Your task to perform on an android device: change the clock style Image 0: 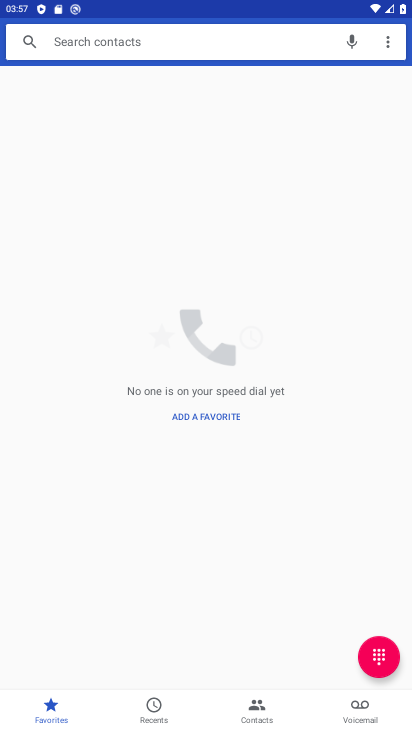
Step 0: press home button
Your task to perform on an android device: change the clock style Image 1: 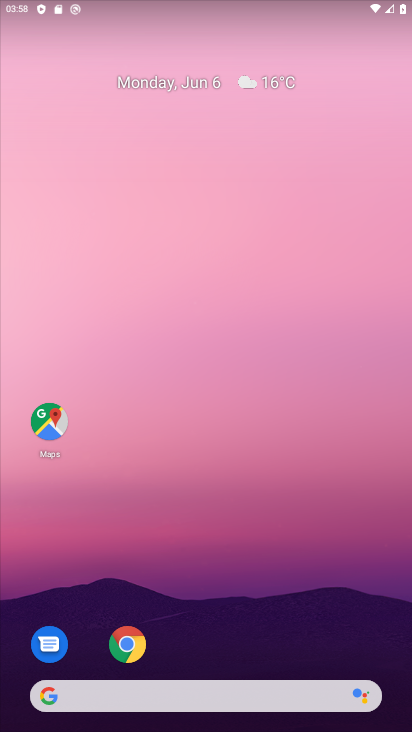
Step 1: drag from (396, 694) to (314, 48)
Your task to perform on an android device: change the clock style Image 2: 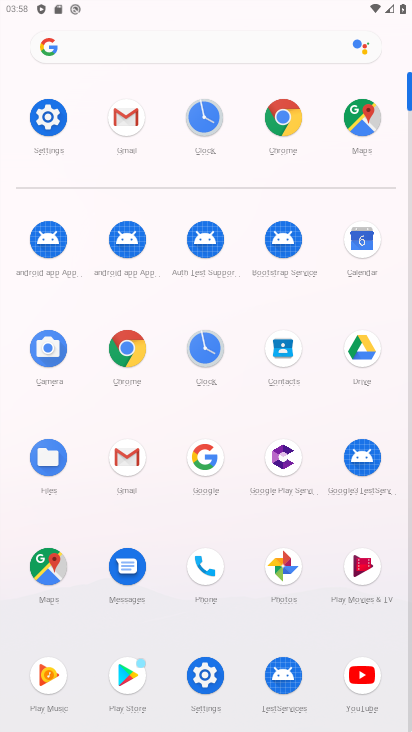
Step 2: click (213, 671)
Your task to perform on an android device: change the clock style Image 3: 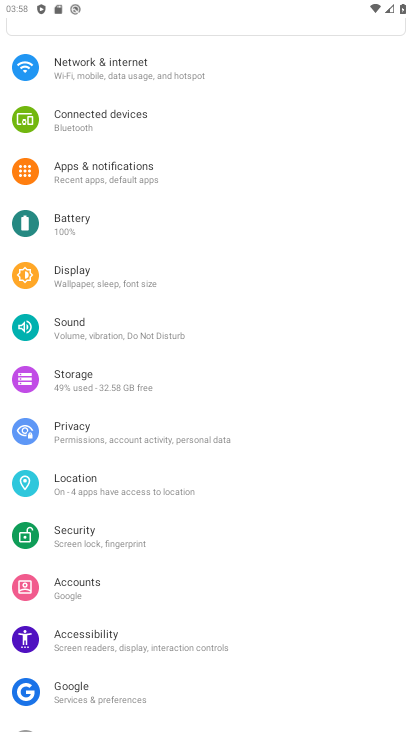
Step 3: press home button
Your task to perform on an android device: change the clock style Image 4: 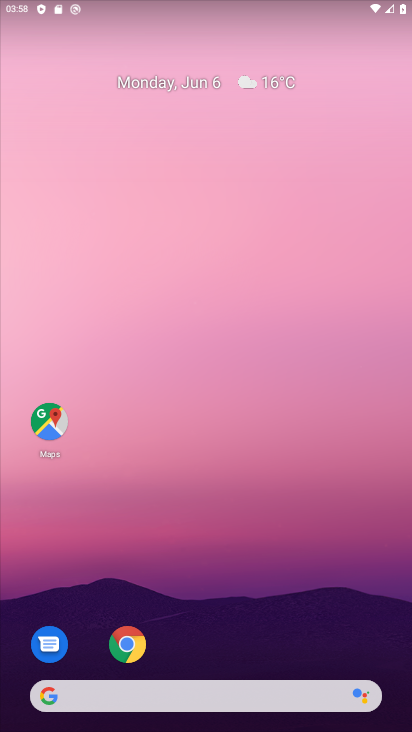
Step 4: drag from (385, 685) to (308, 80)
Your task to perform on an android device: change the clock style Image 5: 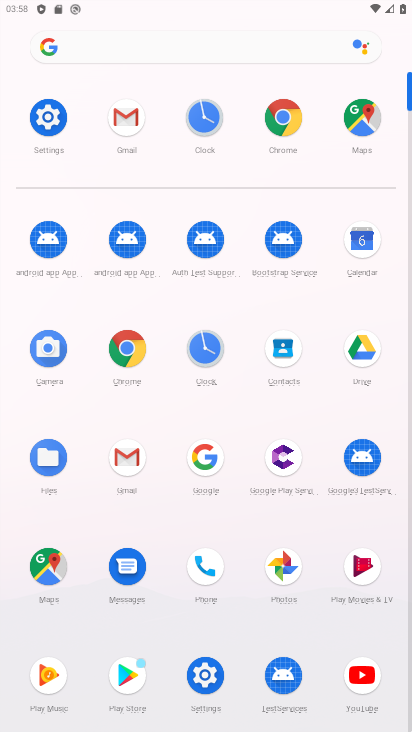
Step 5: click (209, 128)
Your task to perform on an android device: change the clock style Image 6: 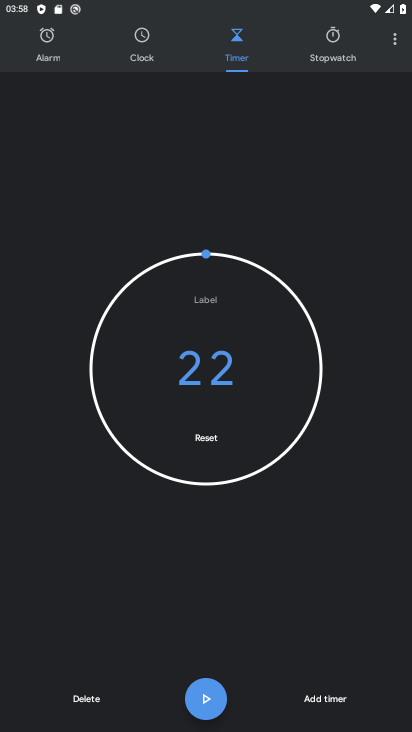
Step 6: click (395, 38)
Your task to perform on an android device: change the clock style Image 7: 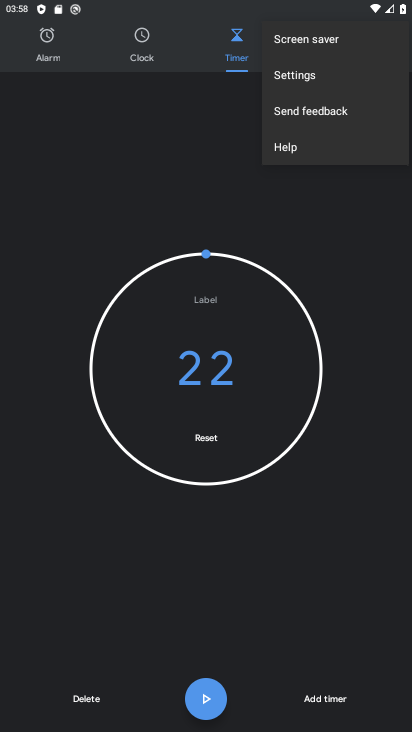
Step 7: click (296, 72)
Your task to perform on an android device: change the clock style Image 8: 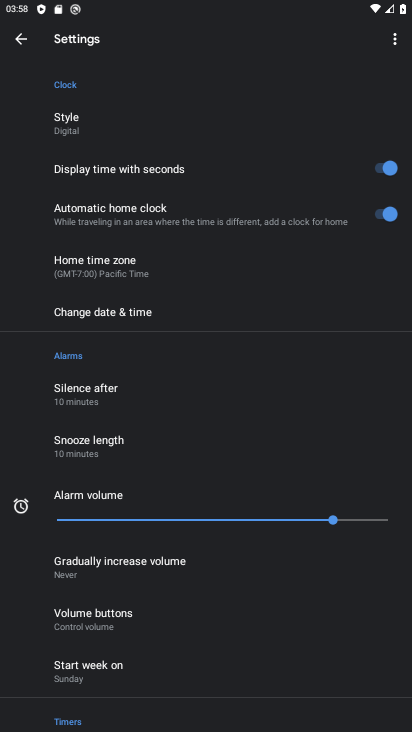
Step 8: click (66, 120)
Your task to perform on an android device: change the clock style Image 9: 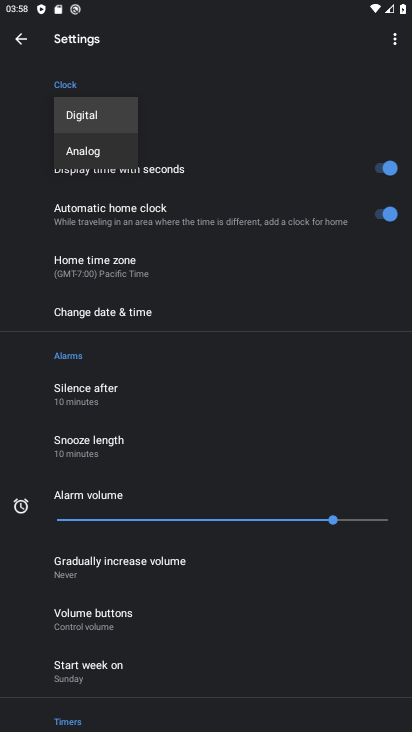
Step 9: click (96, 155)
Your task to perform on an android device: change the clock style Image 10: 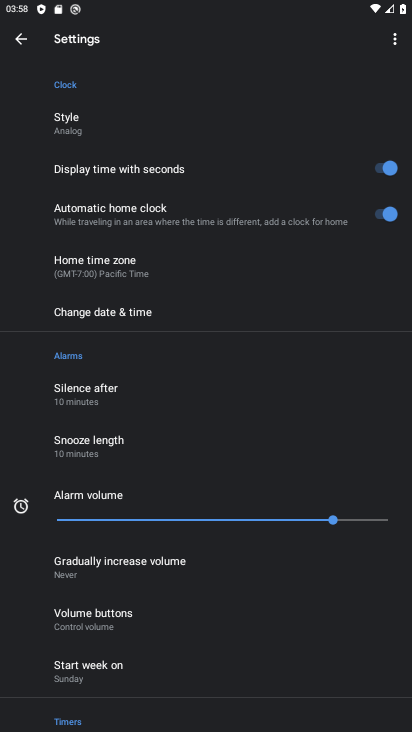
Step 10: task complete